Your task to perform on an android device: Open calendar and show me the second week of next month Image 0: 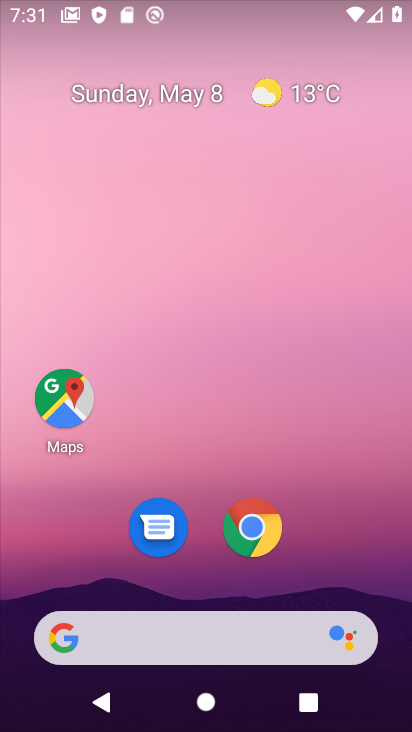
Step 0: drag from (176, 597) to (22, 464)
Your task to perform on an android device: Open calendar and show me the second week of next month Image 1: 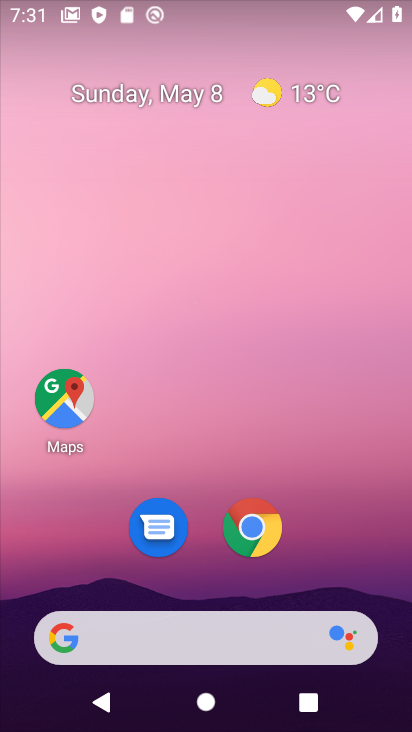
Step 1: drag from (182, 595) to (74, 0)
Your task to perform on an android device: Open calendar and show me the second week of next month Image 2: 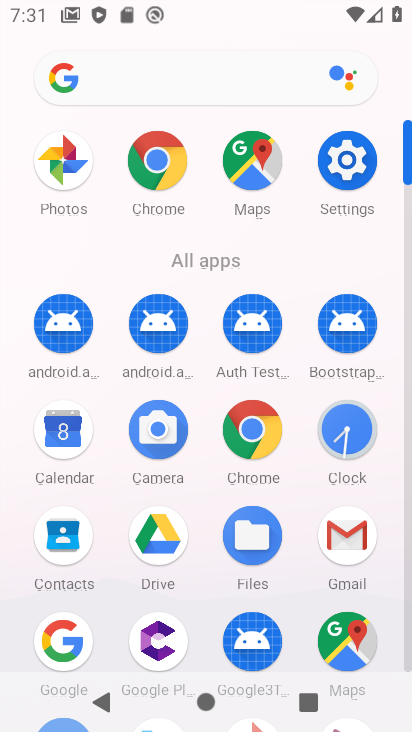
Step 2: click (62, 435)
Your task to perform on an android device: Open calendar and show me the second week of next month Image 3: 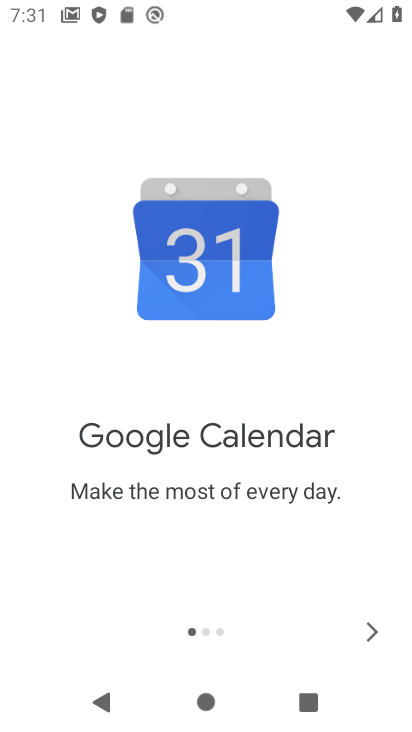
Step 3: click (371, 639)
Your task to perform on an android device: Open calendar and show me the second week of next month Image 4: 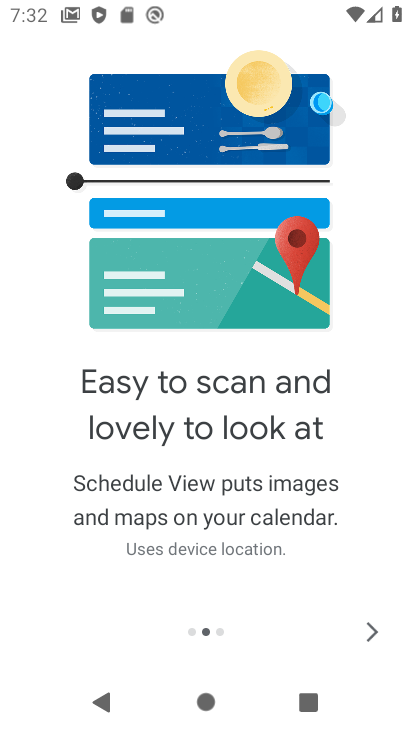
Step 4: click (374, 635)
Your task to perform on an android device: Open calendar and show me the second week of next month Image 5: 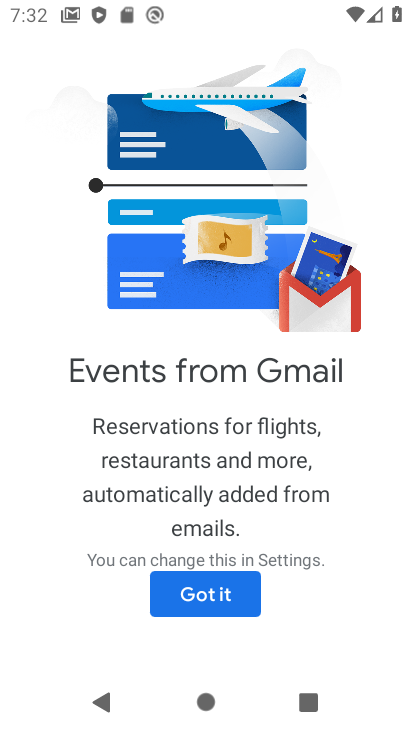
Step 5: click (178, 588)
Your task to perform on an android device: Open calendar and show me the second week of next month Image 6: 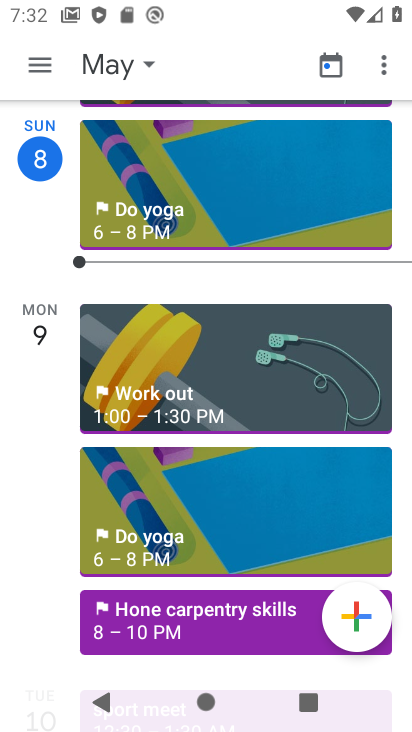
Step 6: click (37, 68)
Your task to perform on an android device: Open calendar and show me the second week of next month Image 7: 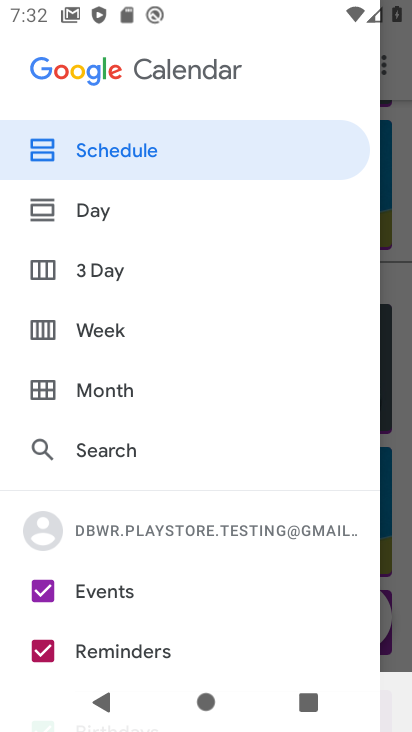
Step 7: click (110, 320)
Your task to perform on an android device: Open calendar and show me the second week of next month Image 8: 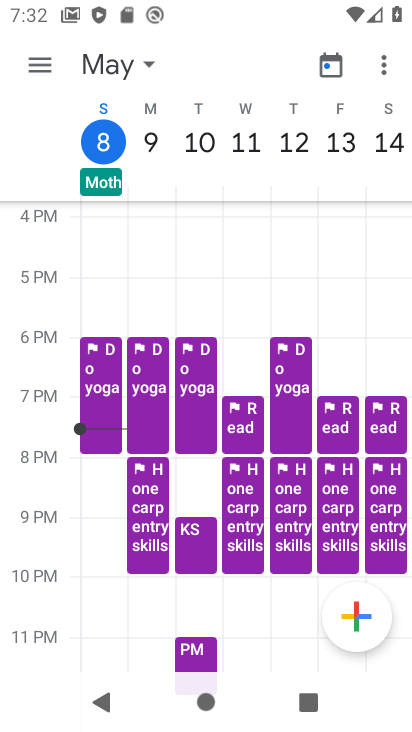
Step 8: task complete